Your task to perform on an android device: Go to Google Image 0: 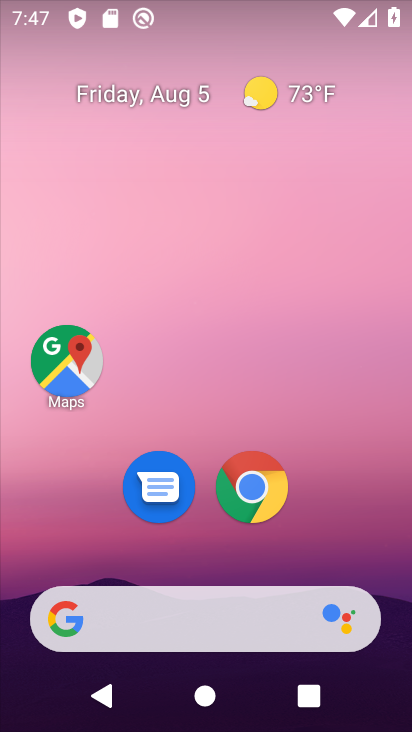
Step 0: drag from (169, 610) to (290, 152)
Your task to perform on an android device: Go to Google Image 1: 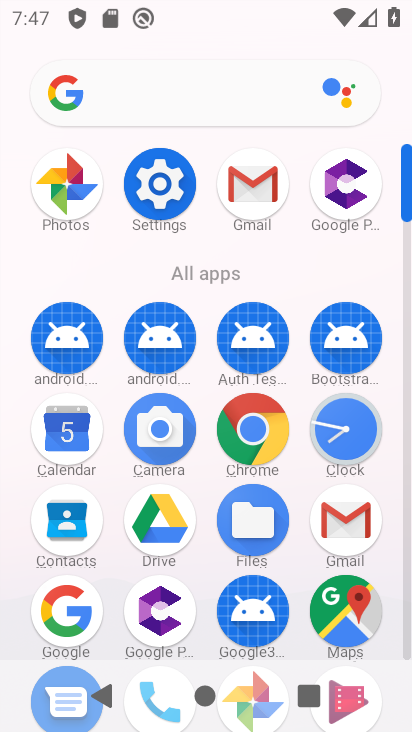
Step 1: click (78, 610)
Your task to perform on an android device: Go to Google Image 2: 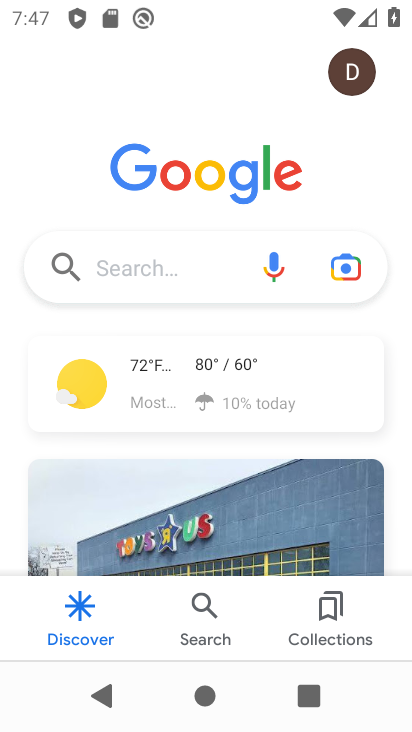
Step 2: task complete